Your task to perform on an android device: open the mobile data screen to see how much data has been used Image 0: 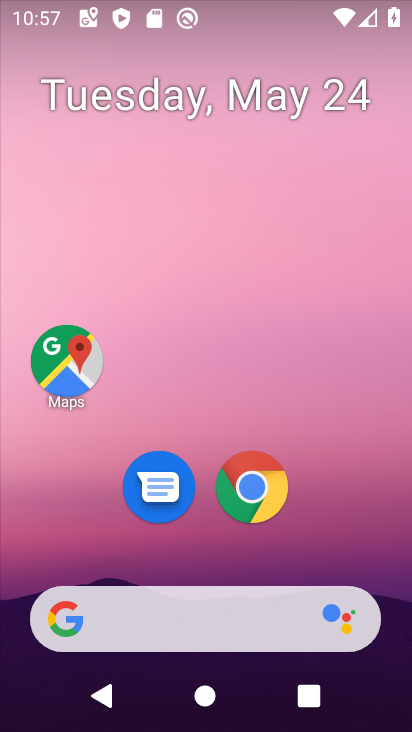
Step 0: drag from (172, 568) to (249, 98)
Your task to perform on an android device: open the mobile data screen to see how much data has been used Image 1: 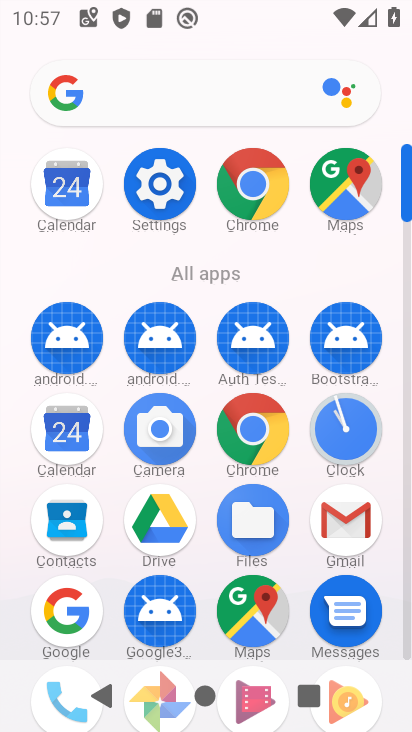
Step 1: click (155, 176)
Your task to perform on an android device: open the mobile data screen to see how much data has been used Image 2: 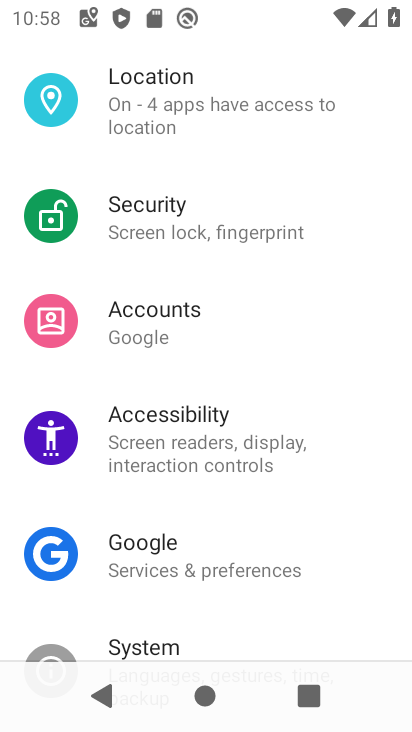
Step 2: drag from (231, 173) to (227, 638)
Your task to perform on an android device: open the mobile data screen to see how much data has been used Image 3: 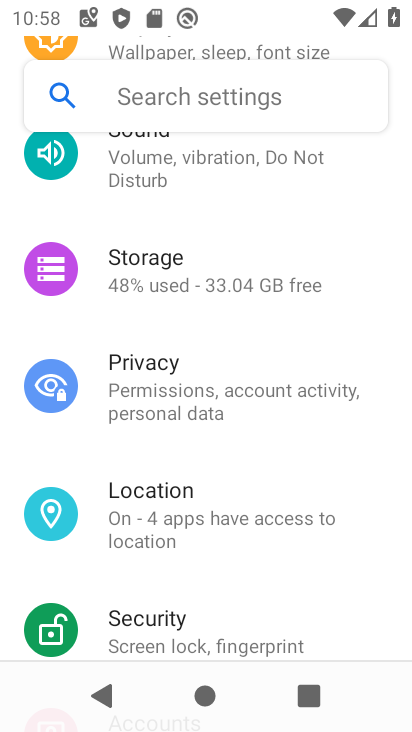
Step 3: drag from (240, 195) to (209, 672)
Your task to perform on an android device: open the mobile data screen to see how much data has been used Image 4: 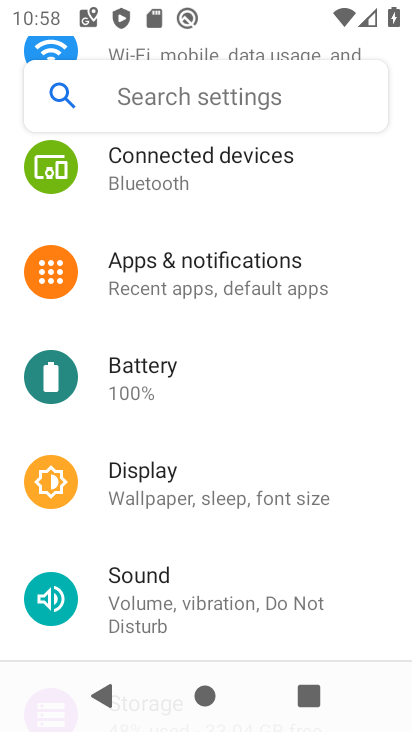
Step 4: drag from (226, 211) to (185, 623)
Your task to perform on an android device: open the mobile data screen to see how much data has been used Image 5: 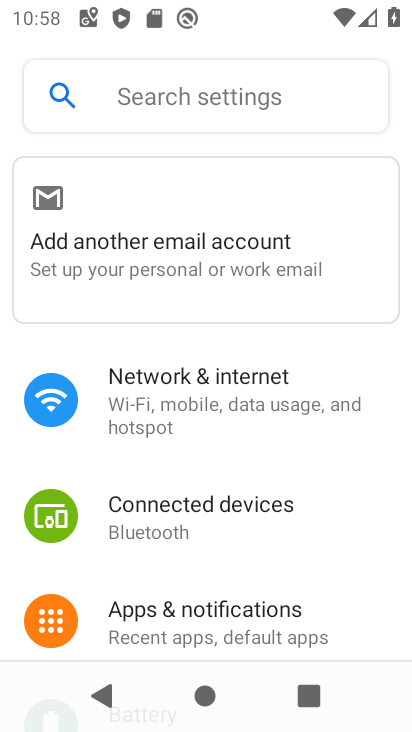
Step 5: click (194, 380)
Your task to perform on an android device: open the mobile data screen to see how much data has been used Image 6: 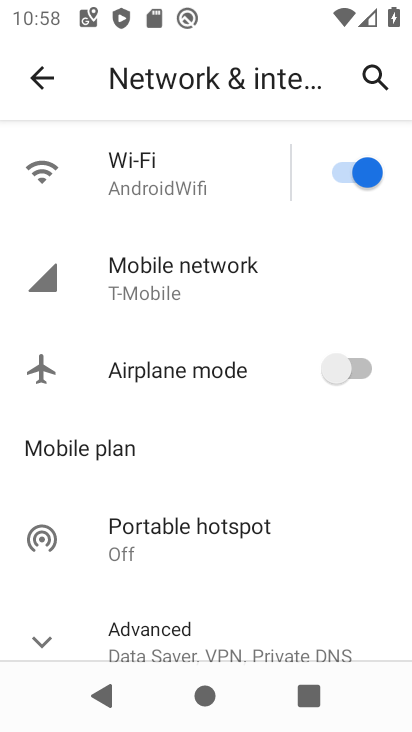
Step 6: click (186, 261)
Your task to perform on an android device: open the mobile data screen to see how much data has been used Image 7: 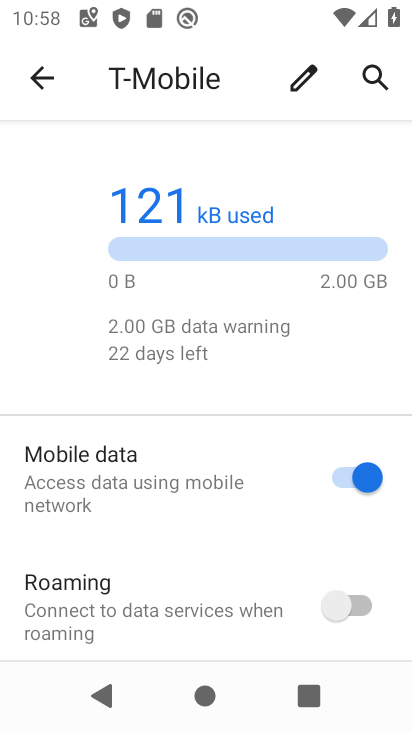
Step 7: drag from (169, 637) to (238, 246)
Your task to perform on an android device: open the mobile data screen to see how much data has been used Image 8: 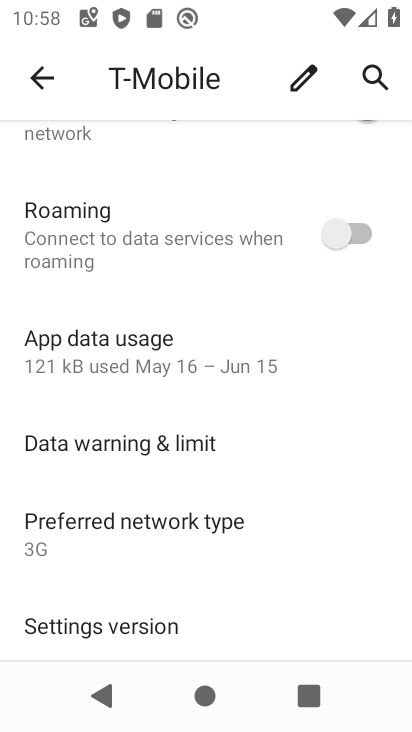
Step 8: click (135, 348)
Your task to perform on an android device: open the mobile data screen to see how much data has been used Image 9: 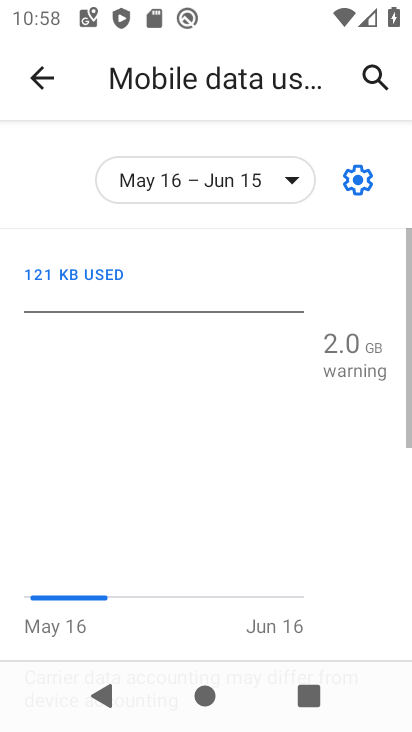
Step 9: task complete